Your task to perform on an android device: Open maps Image 0: 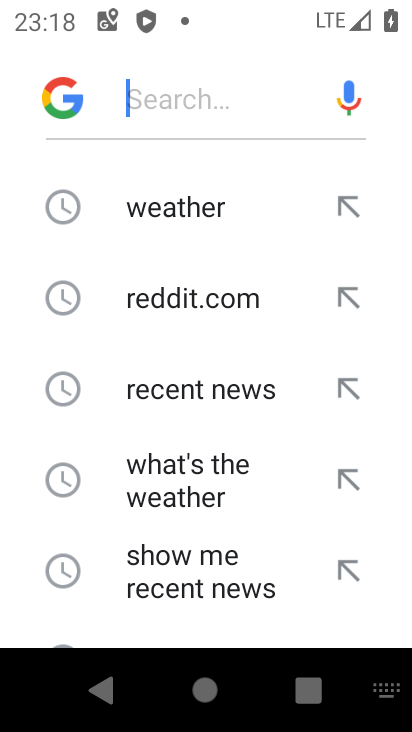
Step 0: press home button
Your task to perform on an android device: Open maps Image 1: 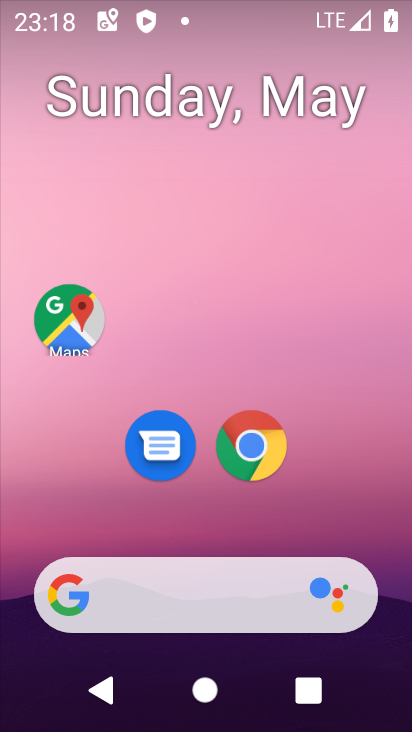
Step 1: click (68, 318)
Your task to perform on an android device: Open maps Image 2: 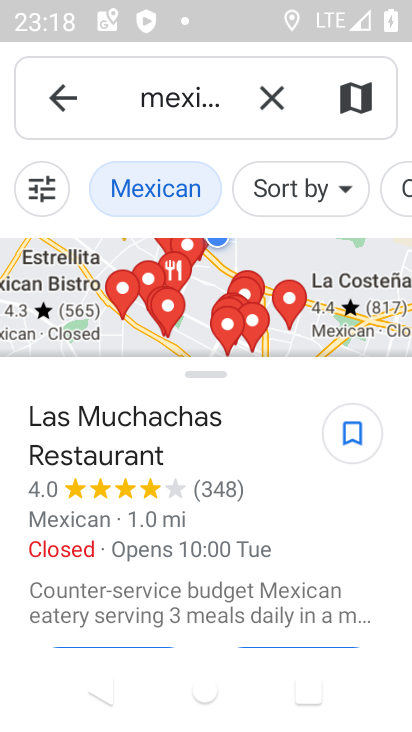
Step 2: click (61, 101)
Your task to perform on an android device: Open maps Image 3: 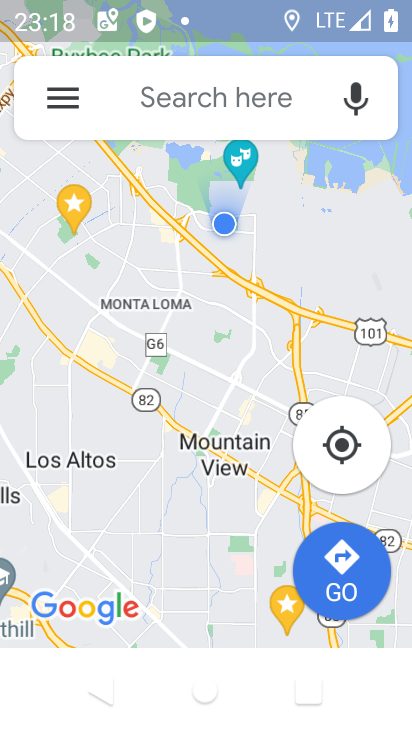
Step 3: task complete